Your task to perform on an android device: open the mobile data screen to see how much data has been used Image 0: 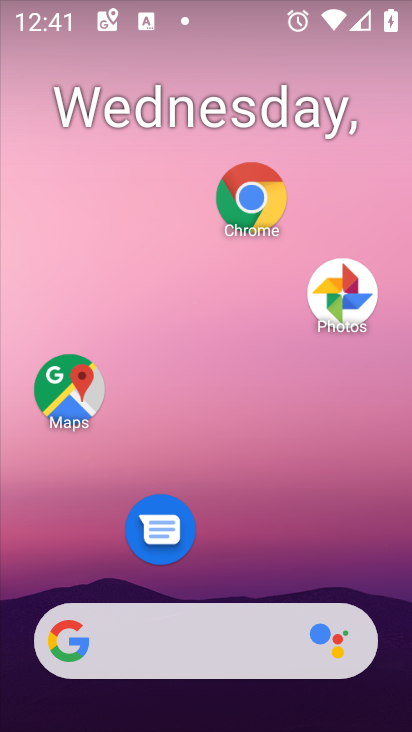
Step 0: drag from (210, 619) to (209, 122)
Your task to perform on an android device: open the mobile data screen to see how much data has been used Image 1: 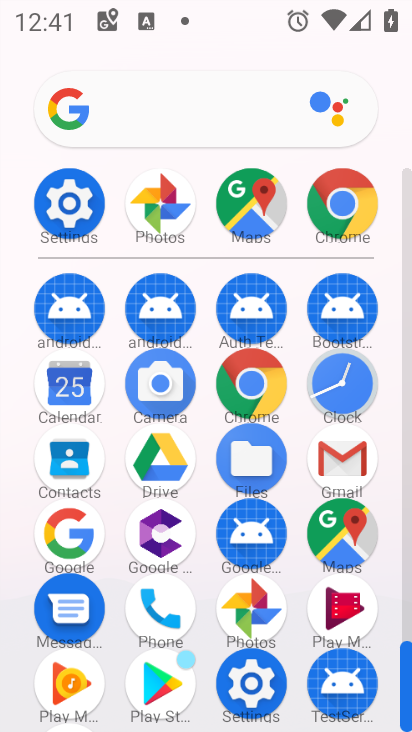
Step 1: click (86, 215)
Your task to perform on an android device: open the mobile data screen to see how much data has been used Image 2: 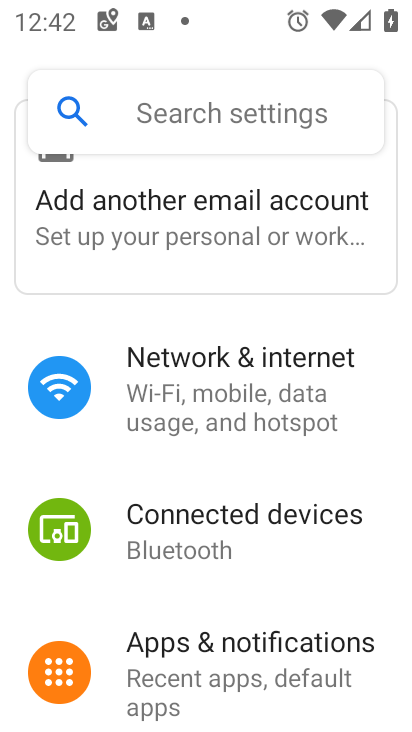
Step 2: click (198, 398)
Your task to perform on an android device: open the mobile data screen to see how much data has been used Image 3: 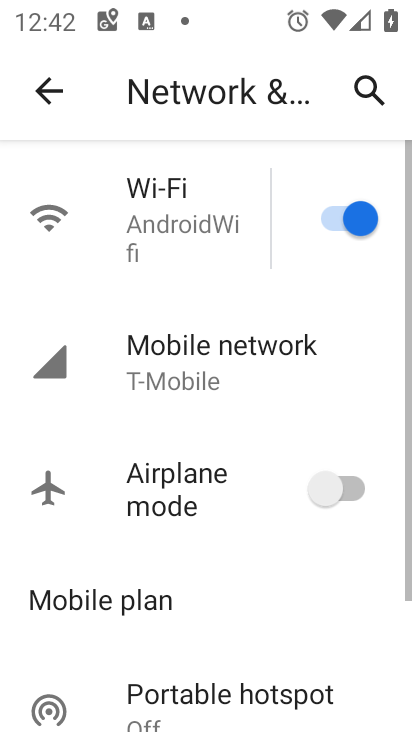
Step 3: click (189, 358)
Your task to perform on an android device: open the mobile data screen to see how much data has been used Image 4: 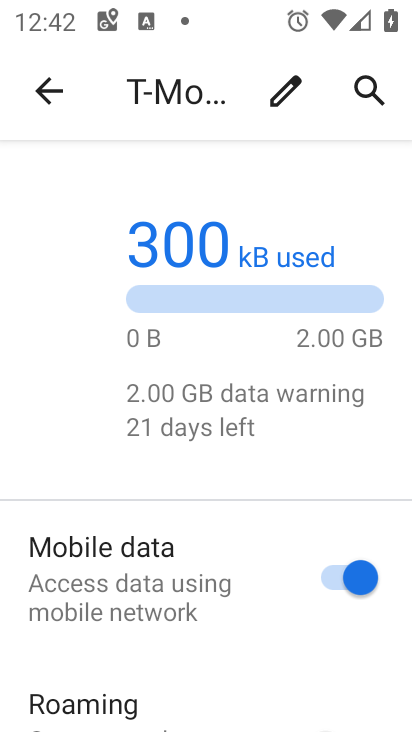
Step 4: drag from (207, 644) to (163, 187)
Your task to perform on an android device: open the mobile data screen to see how much data has been used Image 5: 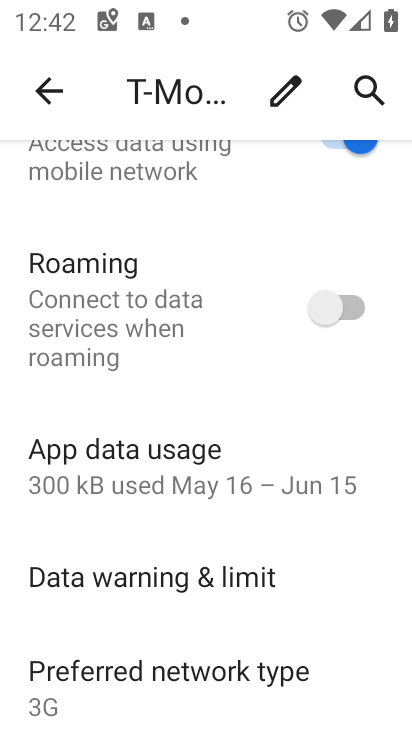
Step 5: click (175, 480)
Your task to perform on an android device: open the mobile data screen to see how much data has been used Image 6: 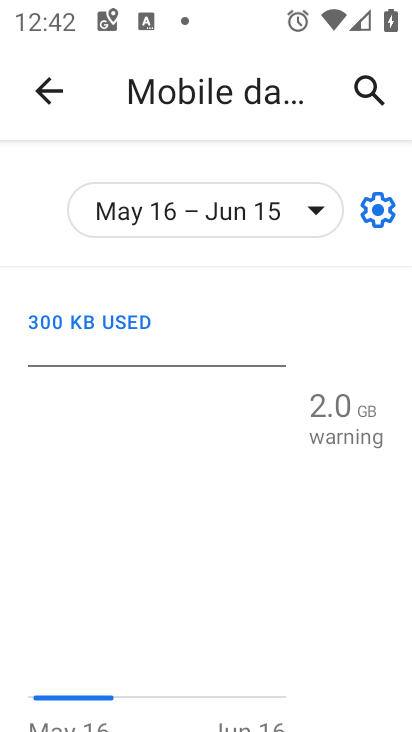
Step 6: task complete